Your task to perform on an android device: turn off wifi Image 0: 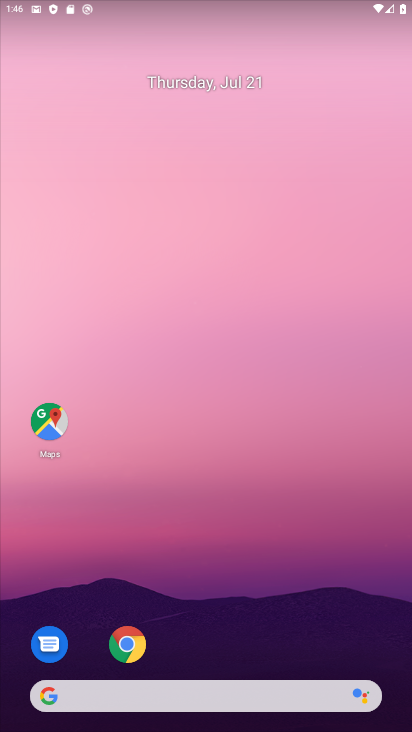
Step 0: drag from (352, 641) to (267, 229)
Your task to perform on an android device: turn off wifi Image 1: 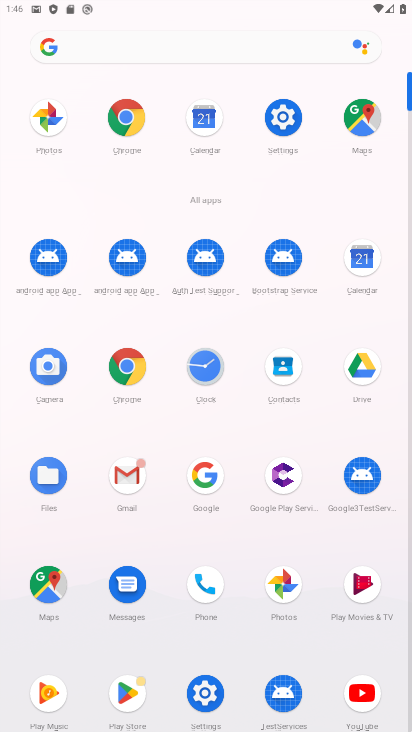
Step 1: click (275, 119)
Your task to perform on an android device: turn off wifi Image 2: 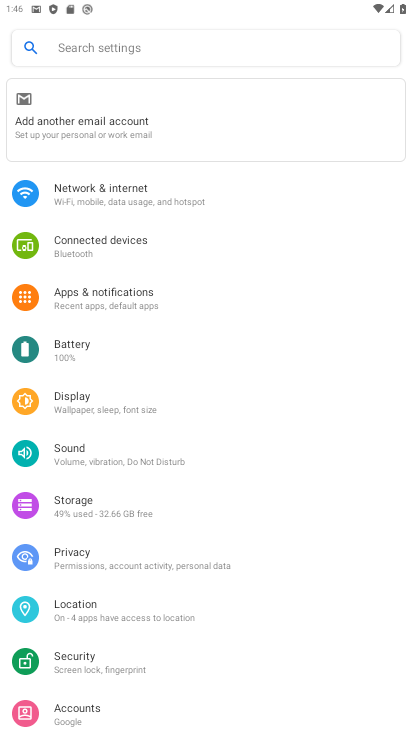
Step 2: click (228, 196)
Your task to perform on an android device: turn off wifi Image 3: 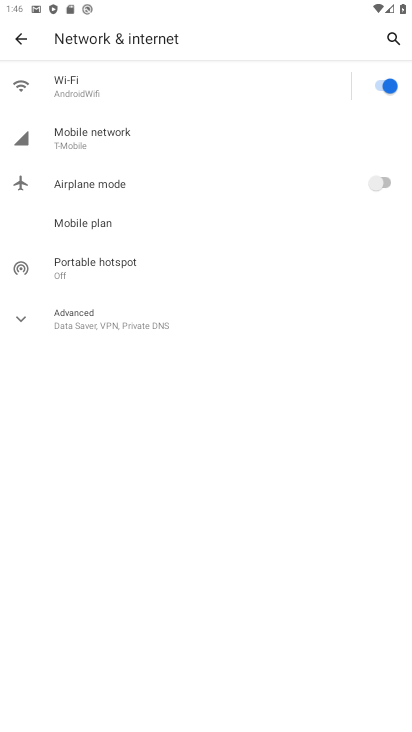
Step 3: click (359, 96)
Your task to perform on an android device: turn off wifi Image 4: 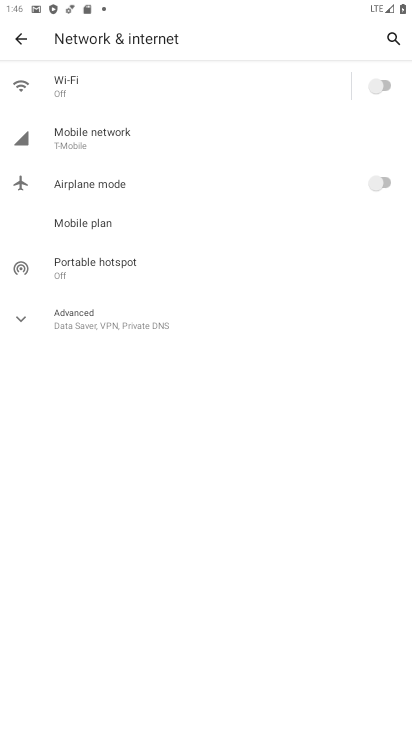
Step 4: task complete